Your task to perform on an android device: Go to internet settings Image 0: 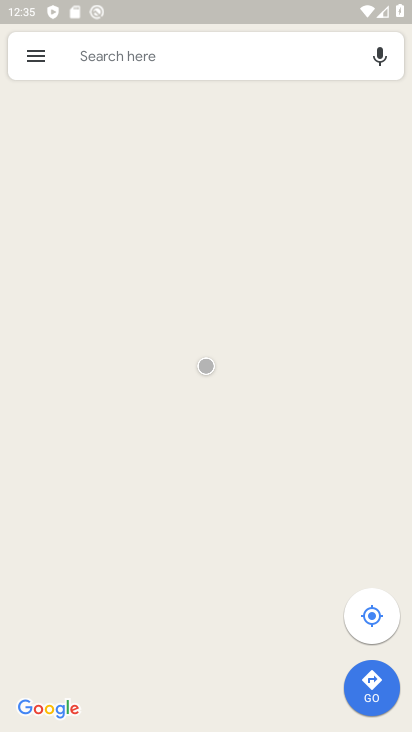
Step 0: press home button
Your task to perform on an android device: Go to internet settings Image 1: 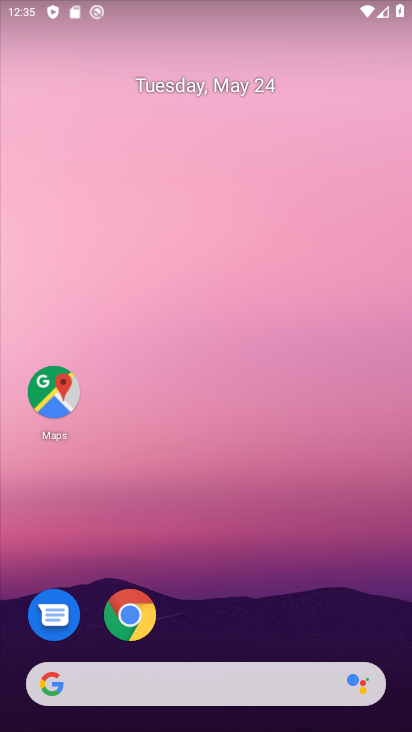
Step 1: drag from (227, 631) to (269, 164)
Your task to perform on an android device: Go to internet settings Image 2: 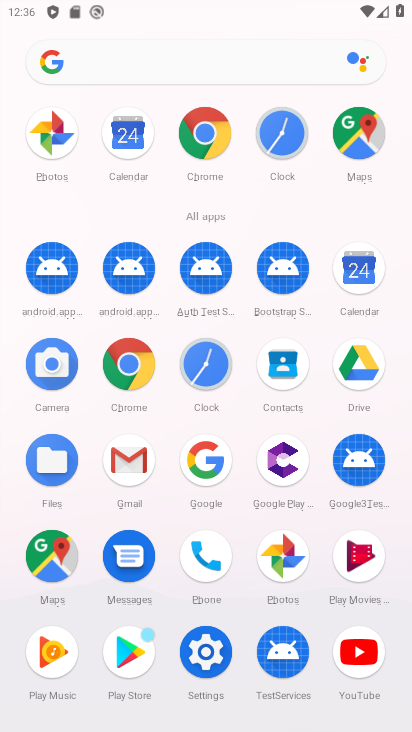
Step 2: click (207, 643)
Your task to perform on an android device: Go to internet settings Image 3: 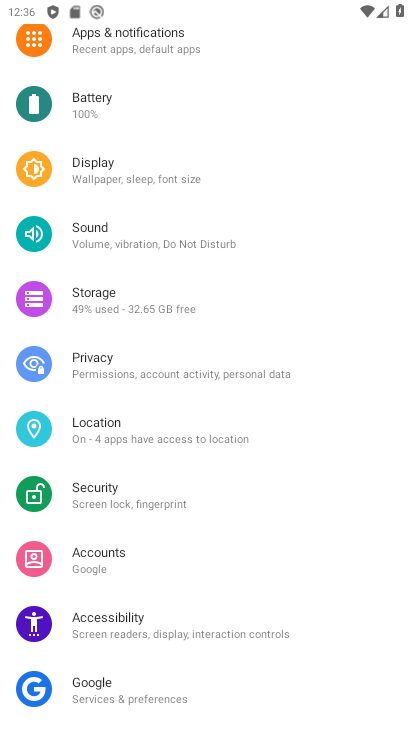
Step 3: drag from (141, 79) to (166, 567)
Your task to perform on an android device: Go to internet settings Image 4: 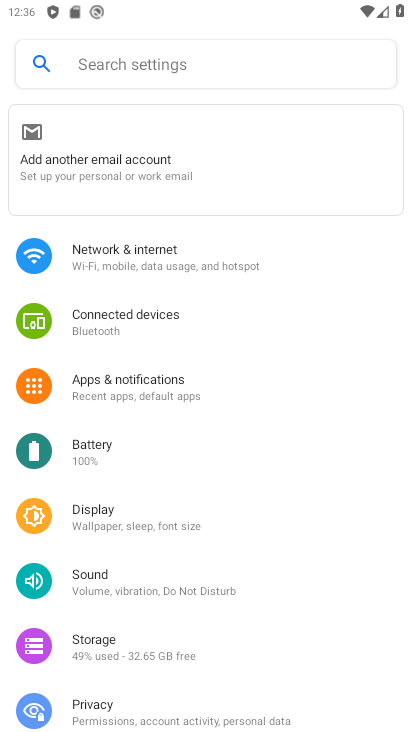
Step 4: click (139, 248)
Your task to perform on an android device: Go to internet settings Image 5: 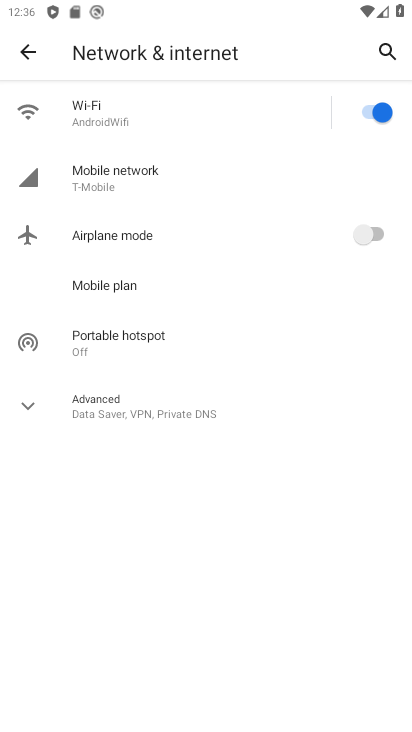
Step 5: click (22, 405)
Your task to perform on an android device: Go to internet settings Image 6: 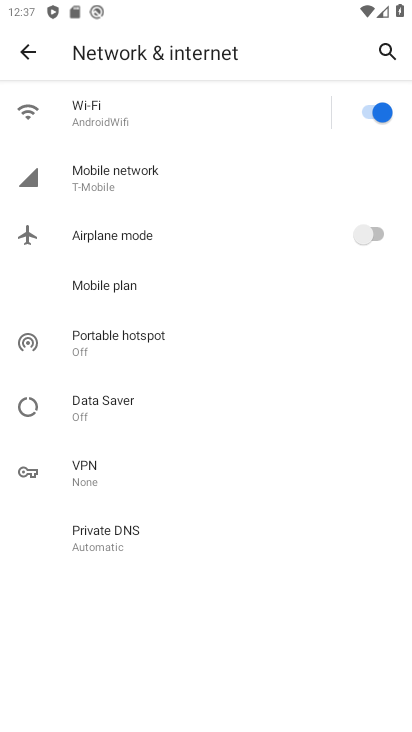
Step 6: task complete